Your task to perform on an android device: Show the shopping cart on newegg.com. Search for duracell triple a on newegg.com, select the first entry, add it to the cart, then select checkout. Image 0: 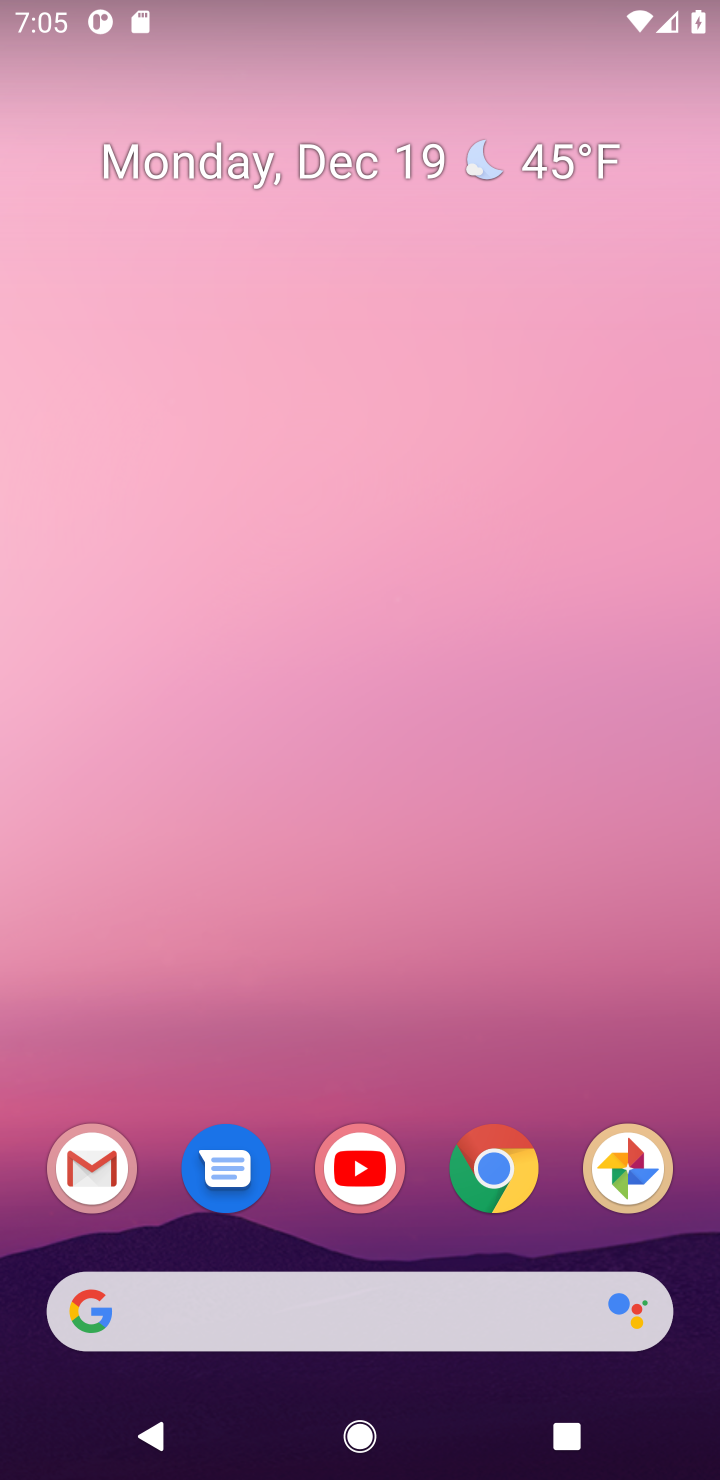
Step 0: click (500, 1175)
Your task to perform on an android device: Show the shopping cart on newegg.com. Search for duracell triple a on newegg.com, select the first entry, add it to the cart, then select checkout. Image 1: 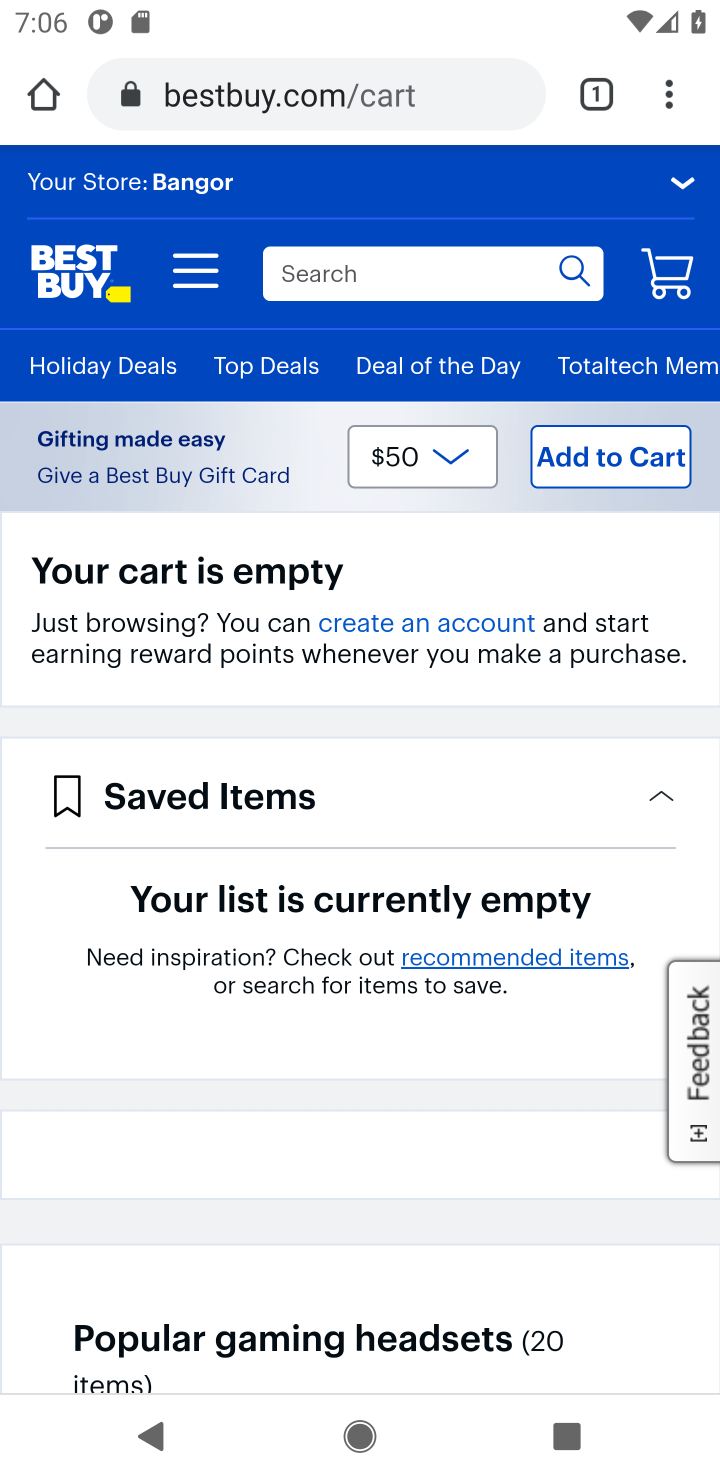
Step 1: click (245, 97)
Your task to perform on an android device: Show the shopping cart on newegg.com. Search for duracell triple a on newegg.com, select the first entry, add it to the cart, then select checkout. Image 2: 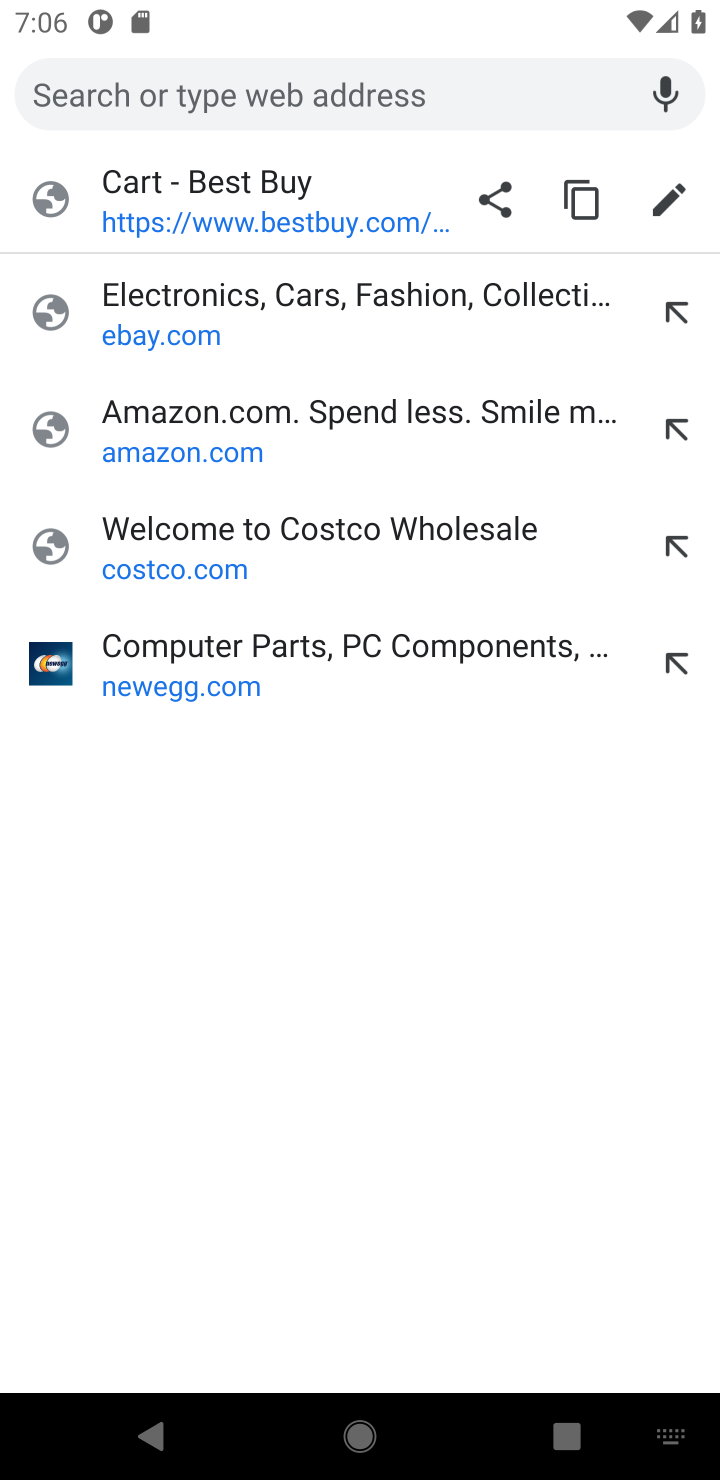
Step 2: click (189, 676)
Your task to perform on an android device: Show the shopping cart on newegg.com. Search for duracell triple a on newegg.com, select the first entry, add it to the cart, then select checkout. Image 3: 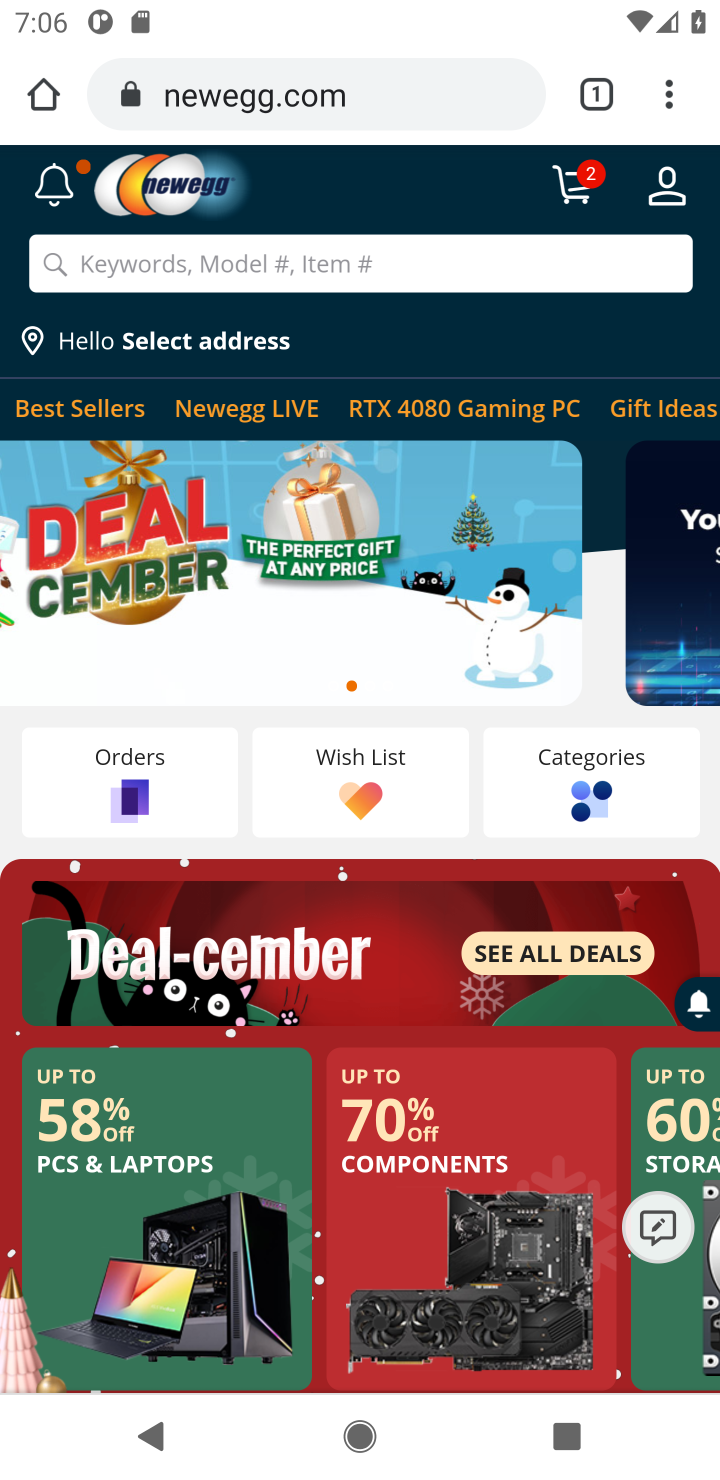
Step 3: click (575, 183)
Your task to perform on an android device: Show the shopping cart on newegg.com. Search for duracell triple a on newegg.com, select the first entry, add it to the cart, then select checkout. Image 4: 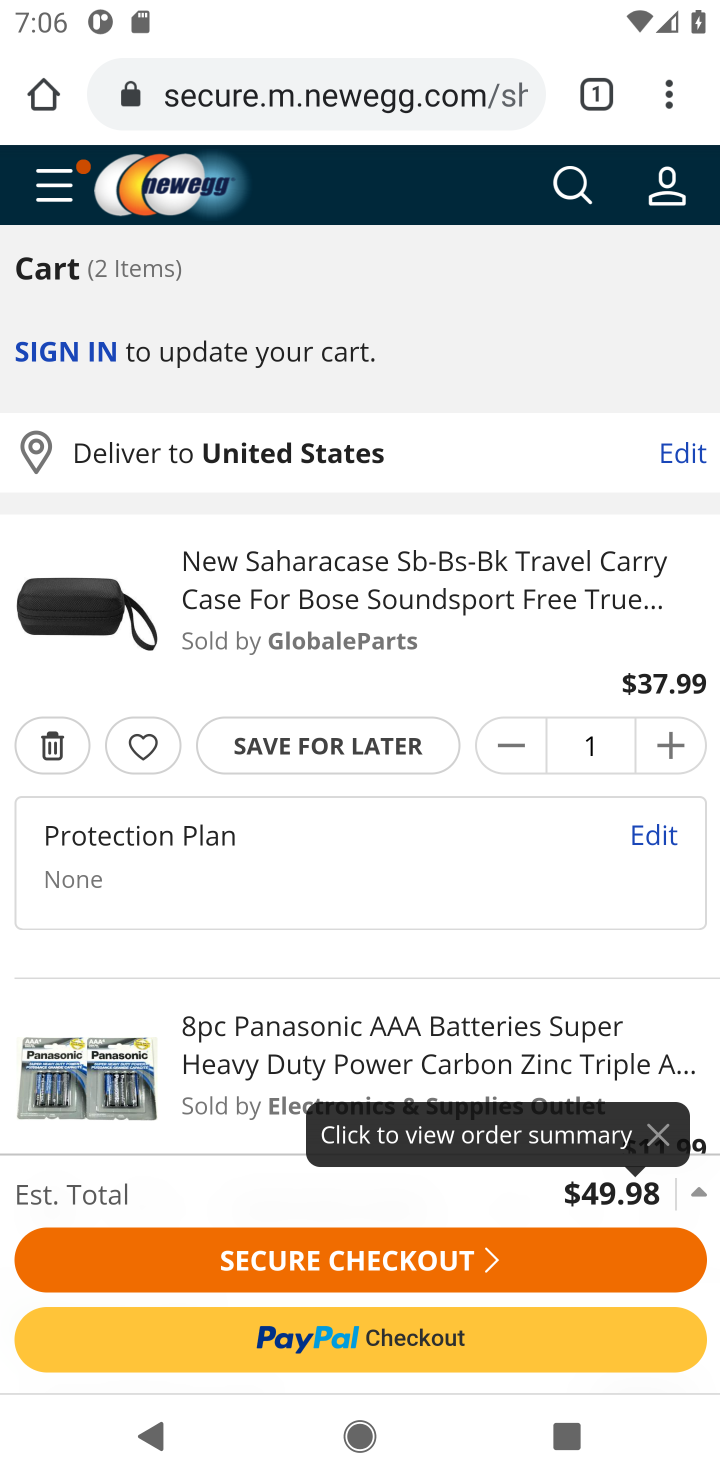
Step 4: click (559, 187)
Your task to perform on an android device: Show the shopping cart on newegg.com. Search for duracell triple a on newegg.com, select the first entry, add it to the cart, then select checkout. Image 5: 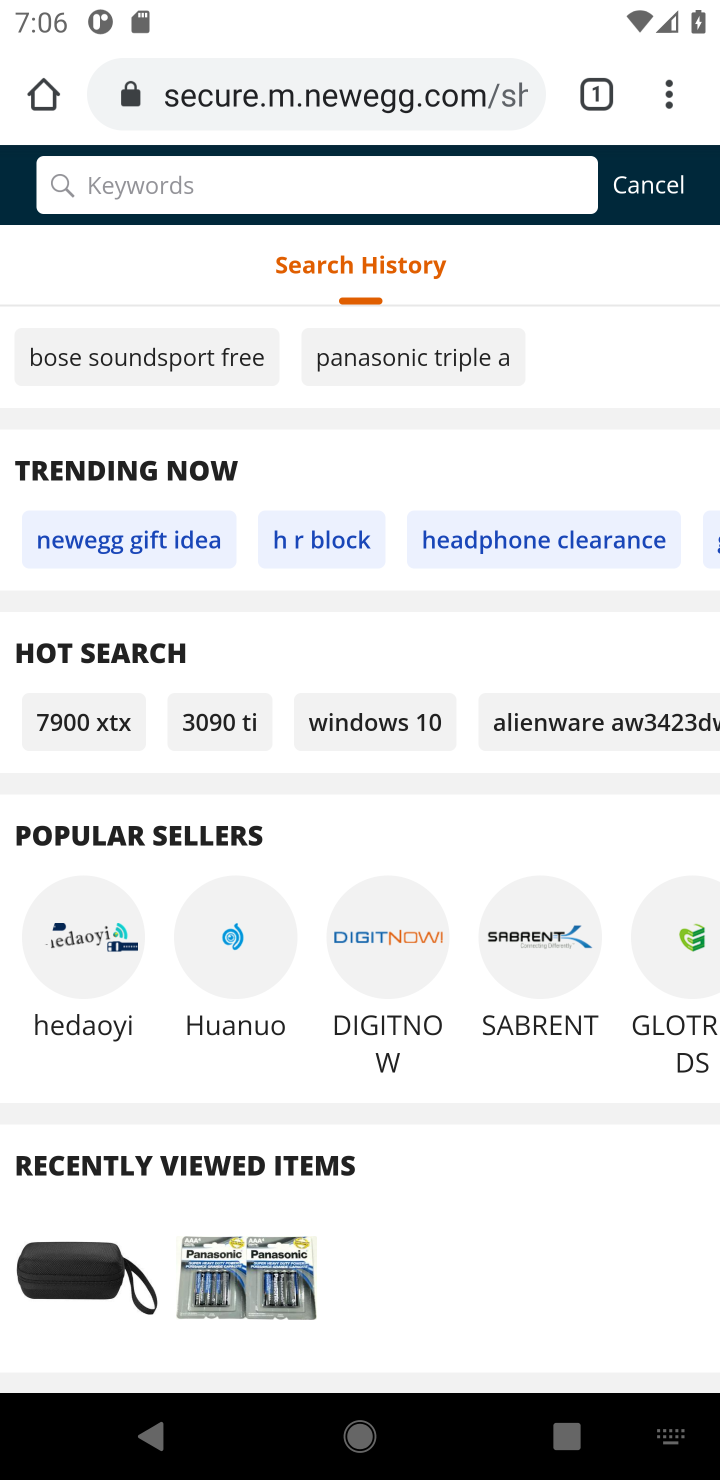
Step 5: type "duracell triple a"
Your task to perform on an android device: Show the shopping cart on newegg.com. Search for duracell triple a on newegg.com, select the first entry, add it to the cart, then select checkout. Image 6: 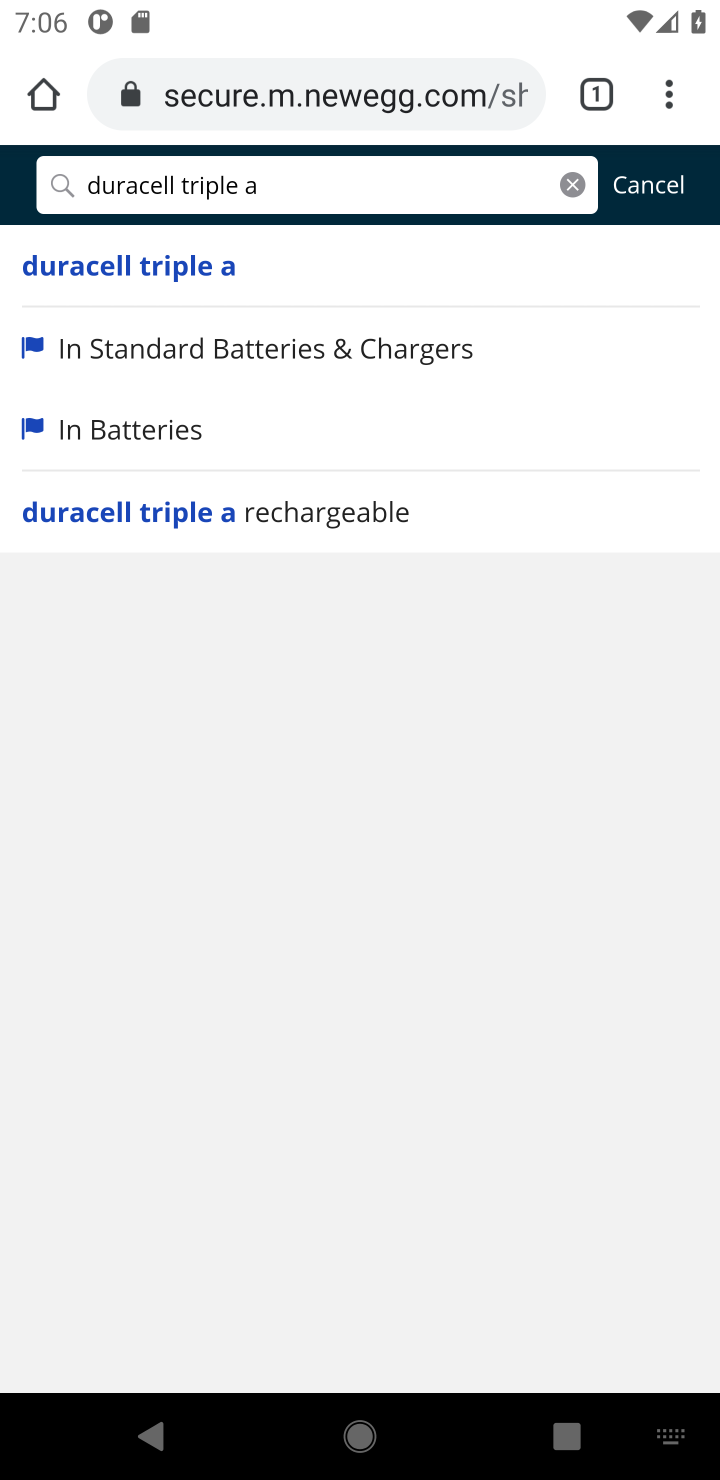
Step 6: click (167, 275)
Your task to perform on an android device: Show the shopping cart on newegg.com. Search for duracell triple a on newegg.com, select the first entry, add it to the cart, then select checkout. Image 7: 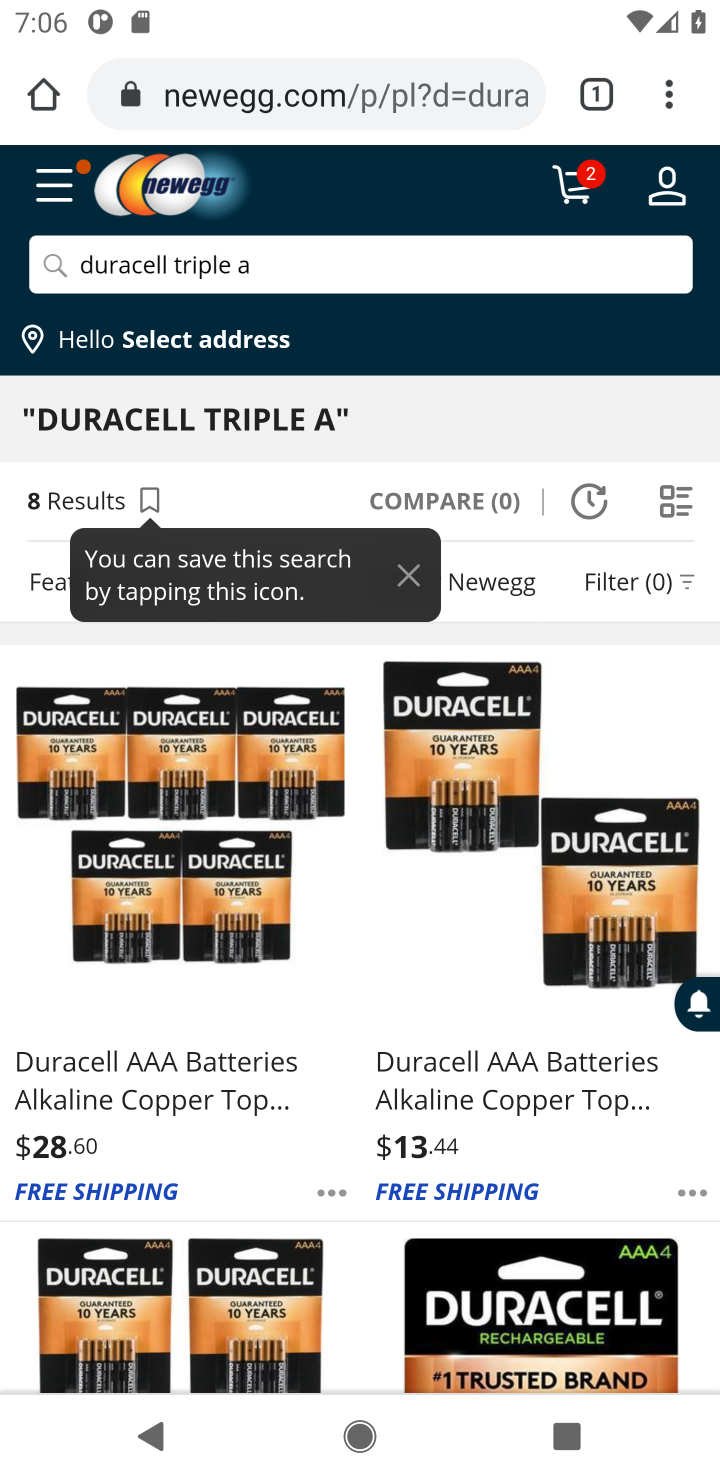
Step 7: click (123, 1071)
Your task to perform on an android device: Show the shopping cart on newegg.com. Search for duracell triple a on newegg.com, select the first entry, add it to the cart, then select checkout. Image 8: 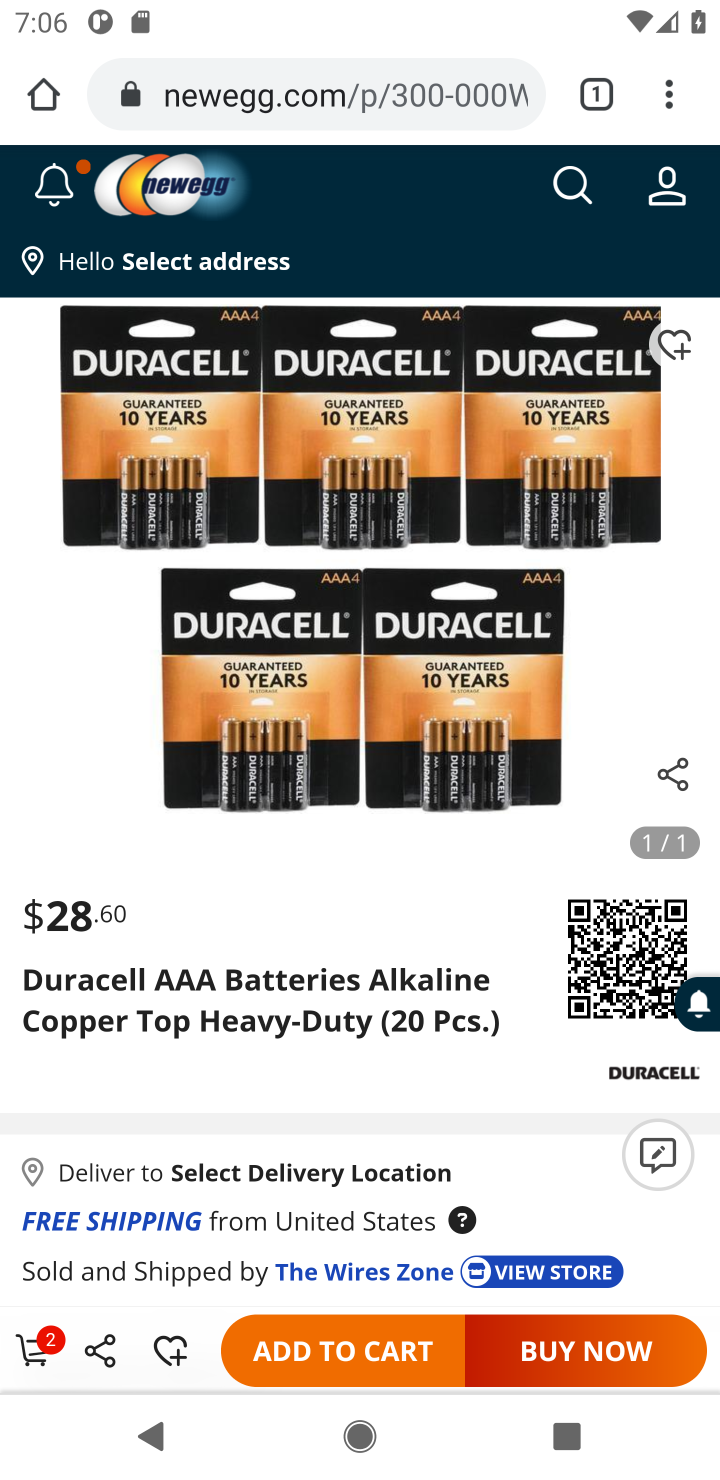
Step 8: click (337, 1351)
Your task to perform on an android device: Show the shopping cart on newegg.com. Search for duracell triple a on newegg.com, select the first entry, add it to the cart, then select checkout. Image 9: 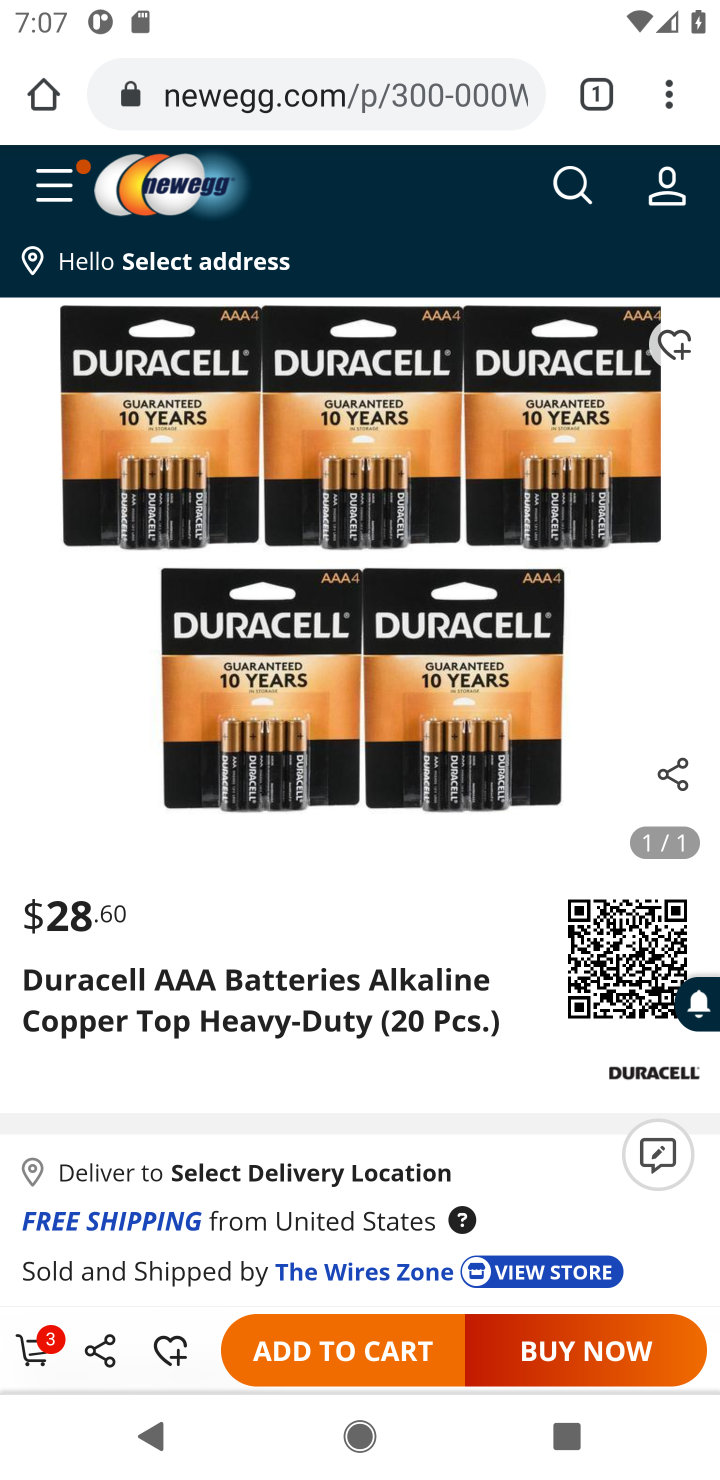
Step 9: click (33, 1359)
Your task to perform on an android device: Show the shopping cart on newegg.com. Search for duracell triple a on newegg.com, select the first entry, add it to the cart, then select checkout. Image 10: 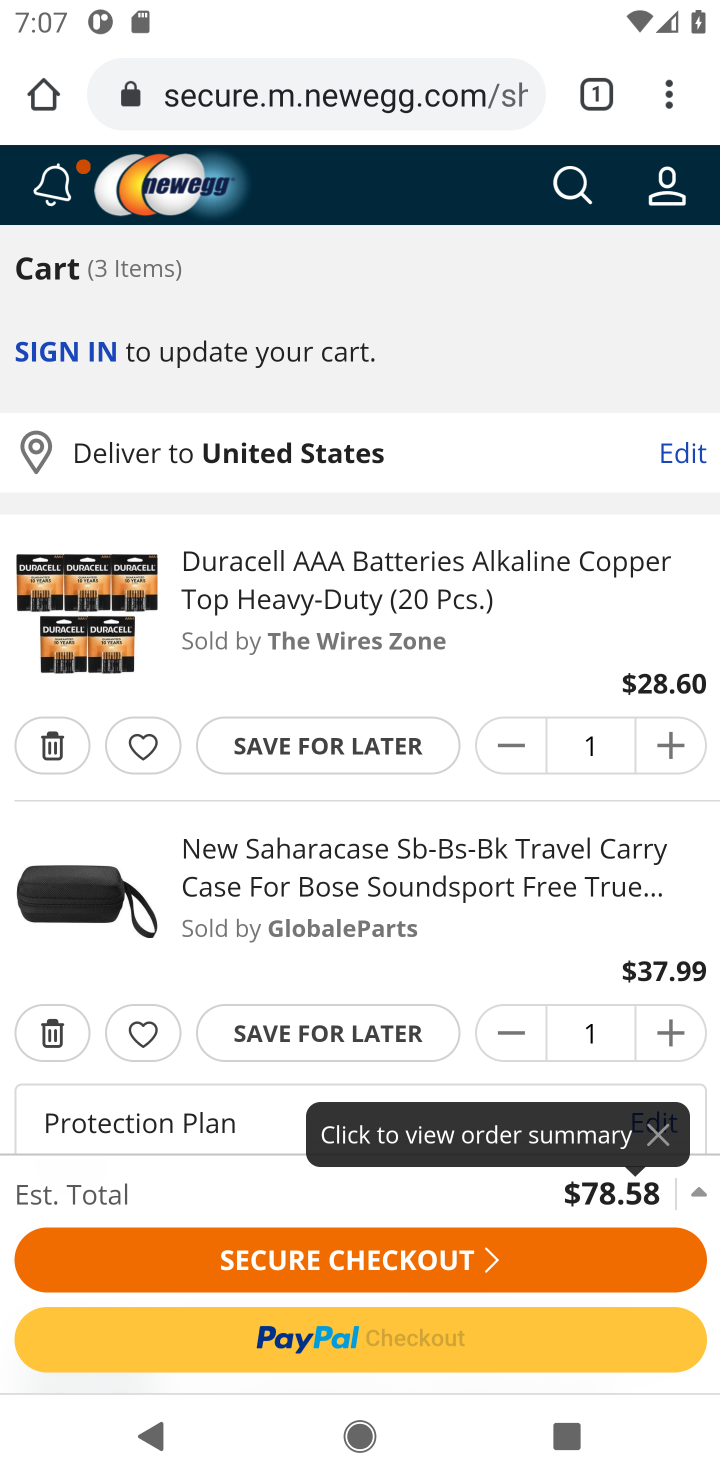
Step 10: click (293, 1273)
Your task to perform on an android device: Show the shopping cart on newegg.com. Search for duracell triple a on newegg.com, select the first entry, add it to the cart, then select checkout. Image 11: 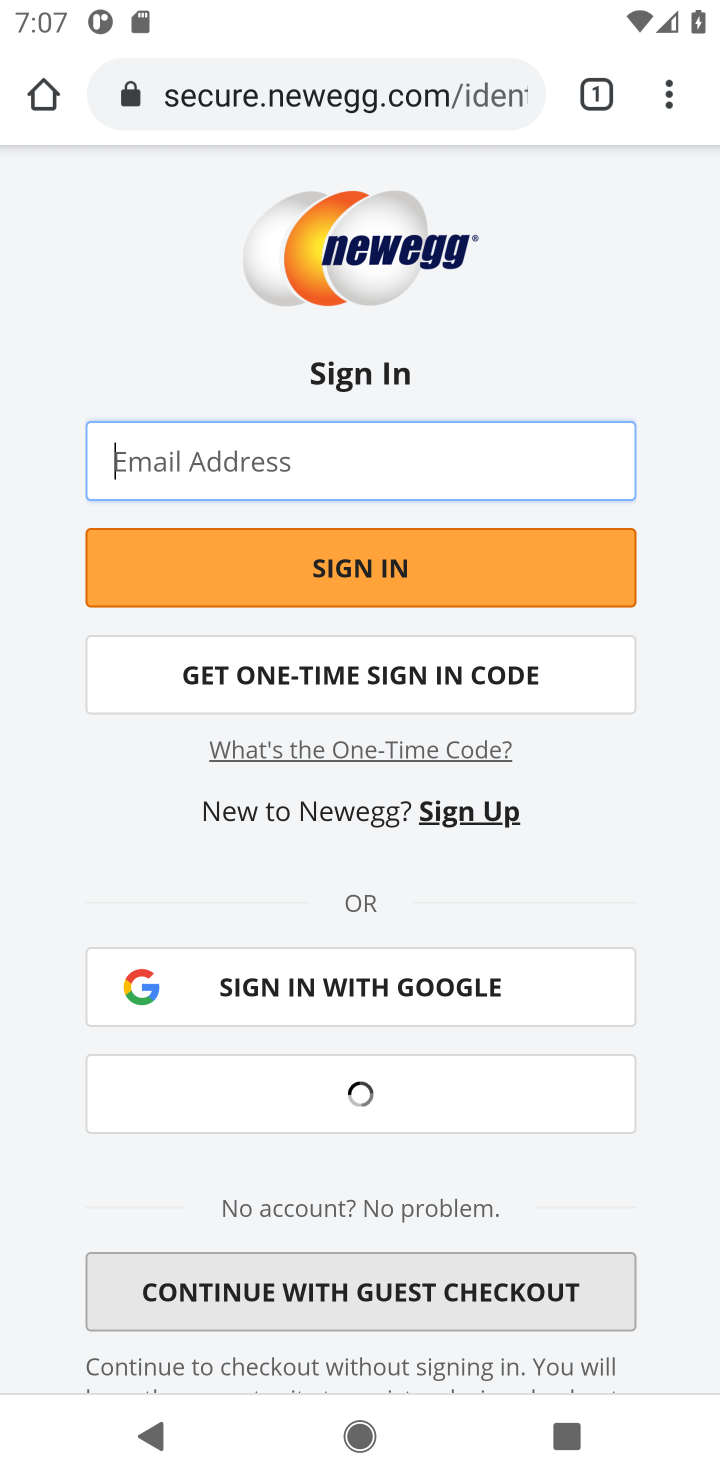
Step 11: task complete